Your task to perform on an android device: toggle sleep mode Image 0: 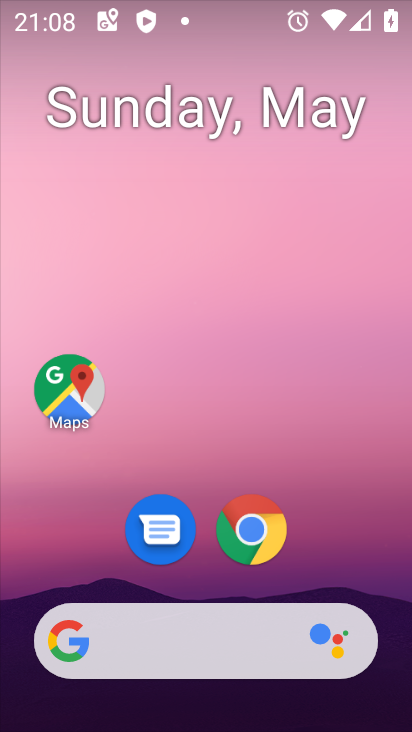
Step 0: drag from (367, 597) to (404, 4)
Your task to perform on an android device: toggle sleep mode Image 1: 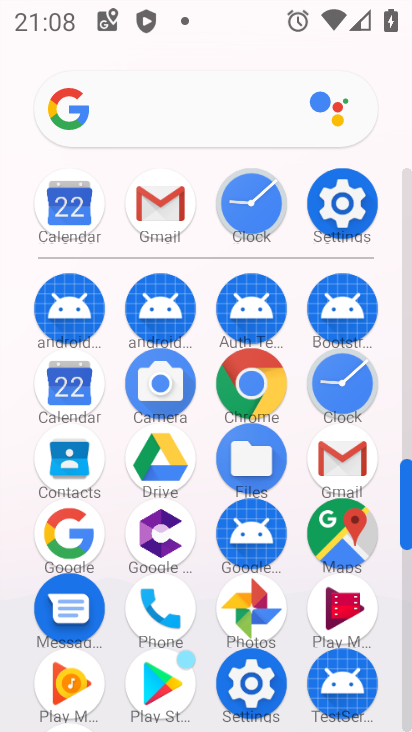
Step 1: click (338, 204)
Your task to perform on an android device: toggle sleep mode Image 2: 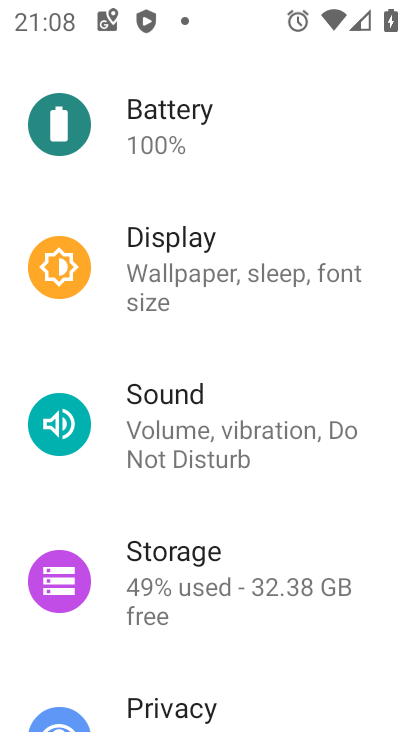
Step 2: click (175, 277)
Your task to perform on an android device: toggle sleep mode Image 3: 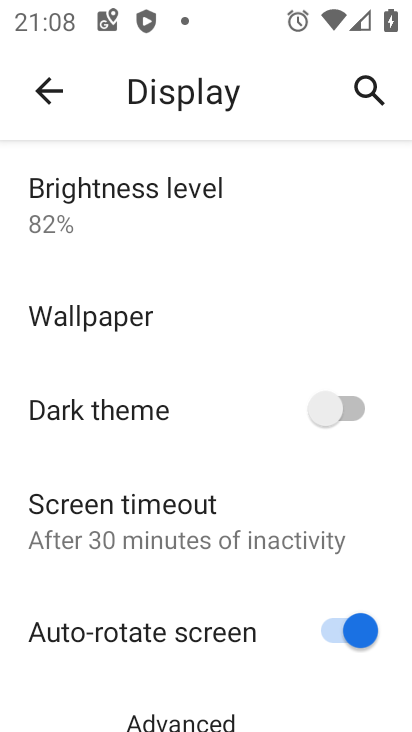
Step 3: drag from (137, 512) to (140, 51)
Your task to perform on an android device: toggle sleep mode Image 4: 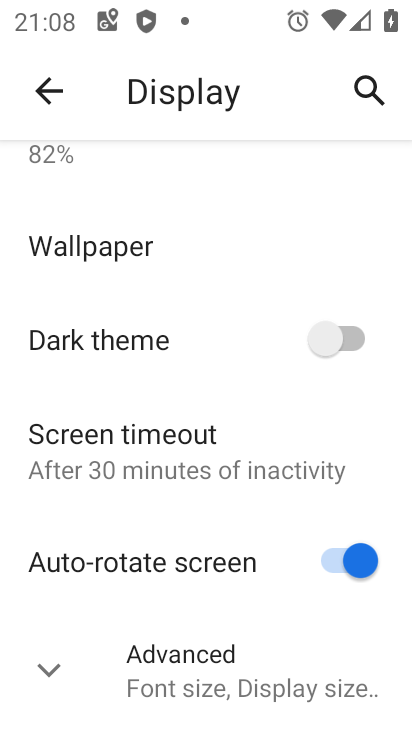
Step 4: click (45, 677)
Your task to perform on an android device: toggle sleep mode Image 5: 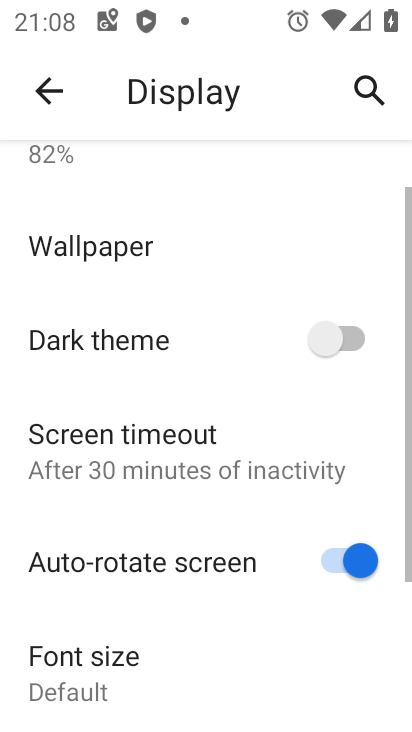
Step 5: task complete